Your task to perform on an android device: see sites visited before in the chrome app Image 0: 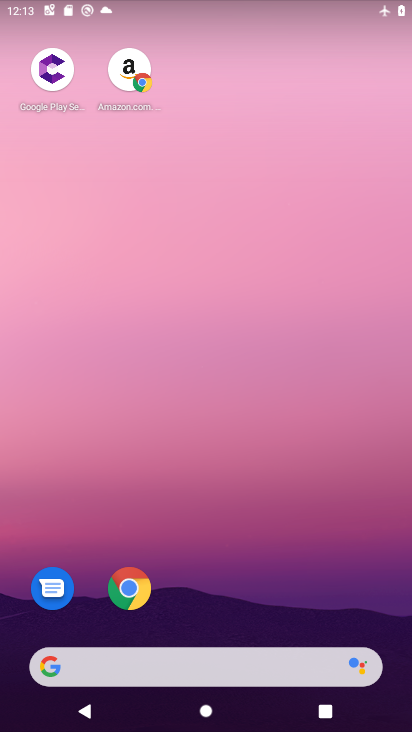
Step 0: drag from (196, 649) to (155, 264)
Your task to perform on an android device: see sites visited before in the chrome app Image 1: 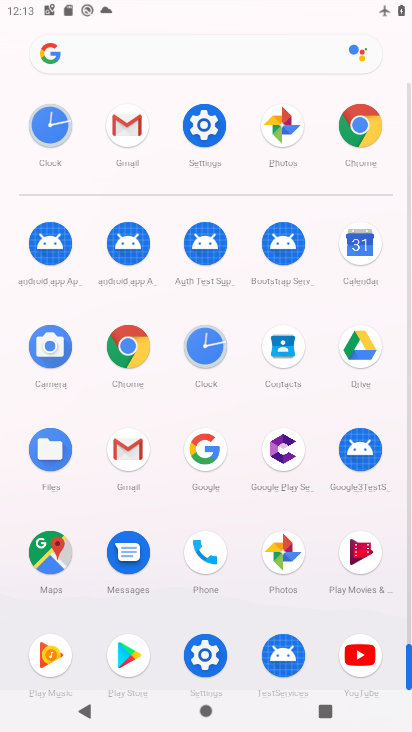
Step 1: click (138, 348)
Your task to perform on an android device: see sites visited before in the chrome app Image 2: 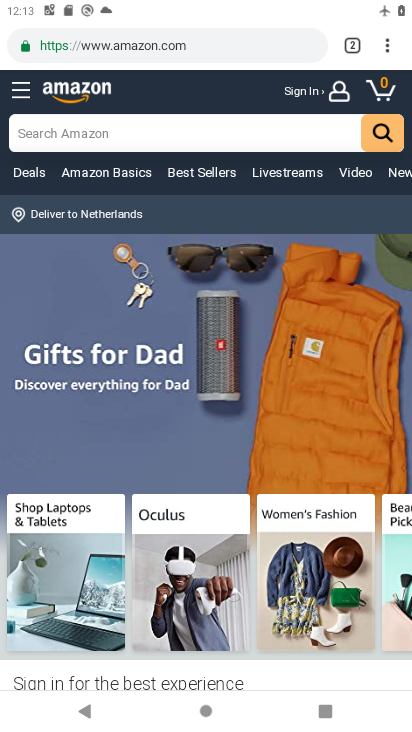
Step 2: click (390, 48)
Your task to perform on an android device: see sites visited before in the chrome app Image 3: 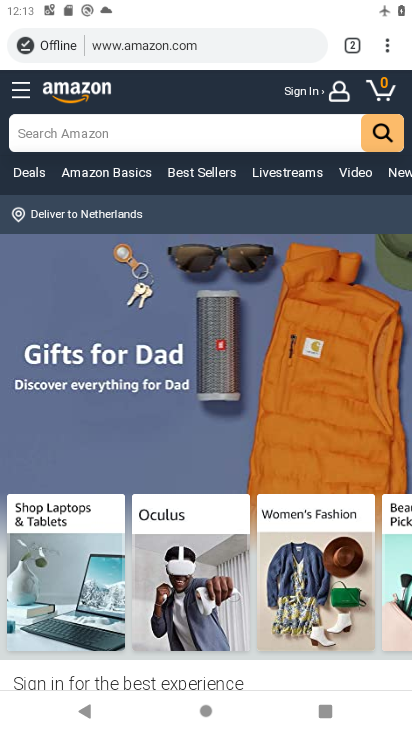
Step 3: task complete